Your task to perform on an android device: Look up the best selling books on Goodreads. Image 0: 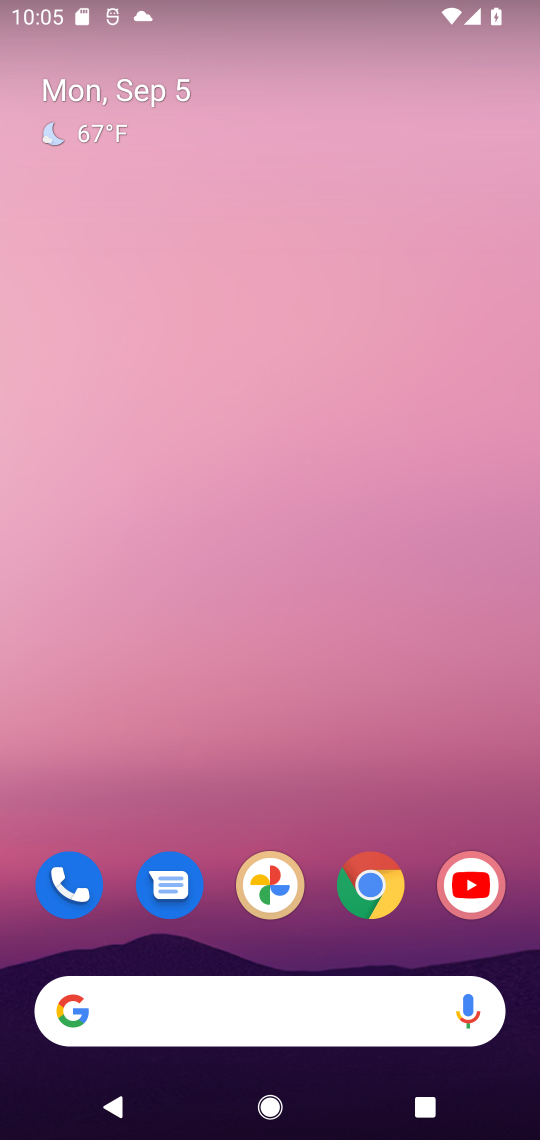
Step 0: drag from (315, 952) to (283, 41)
Your task to perform on an android device: Look up the best selling books on Goodreads. Image 1: 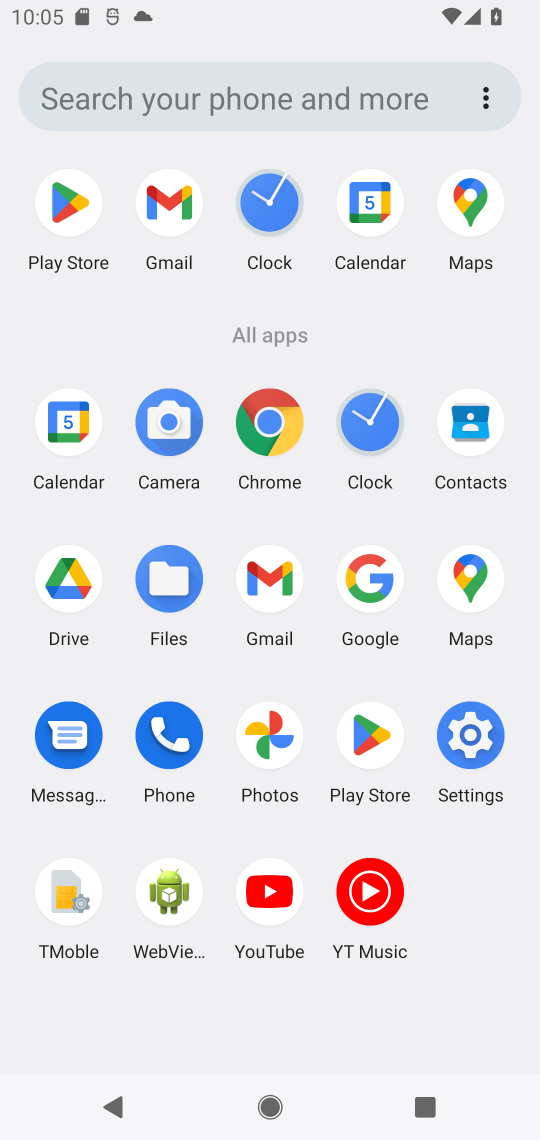
Step 1: click (370, 567)
Your task to perform on an android device: Look up the best selling books on Goodreads. Image 2: 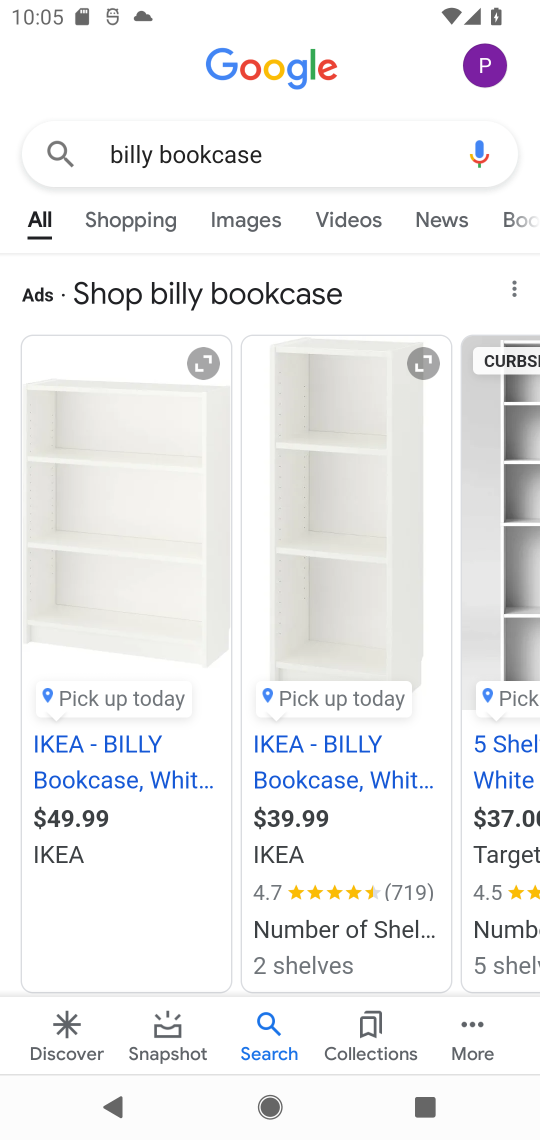
Step 2: click (319, 158)
Your task to perform on an android device: Look up the best selling books on Goodreads. Image 3: 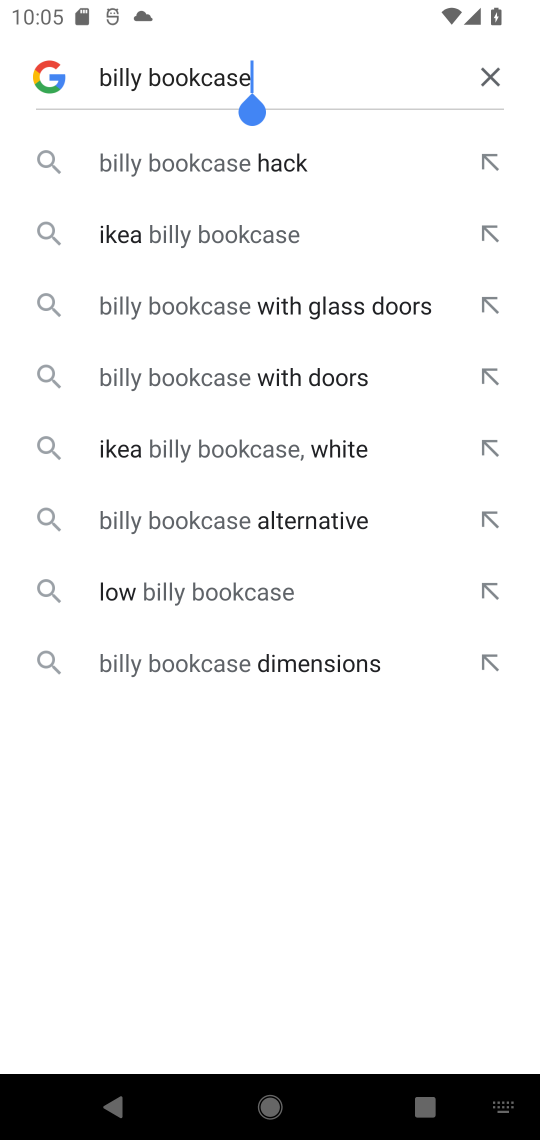
Step 3: click (491, 72)
Your task to perform on an android device: Look up the best selling books on Goodreads. Image 4: 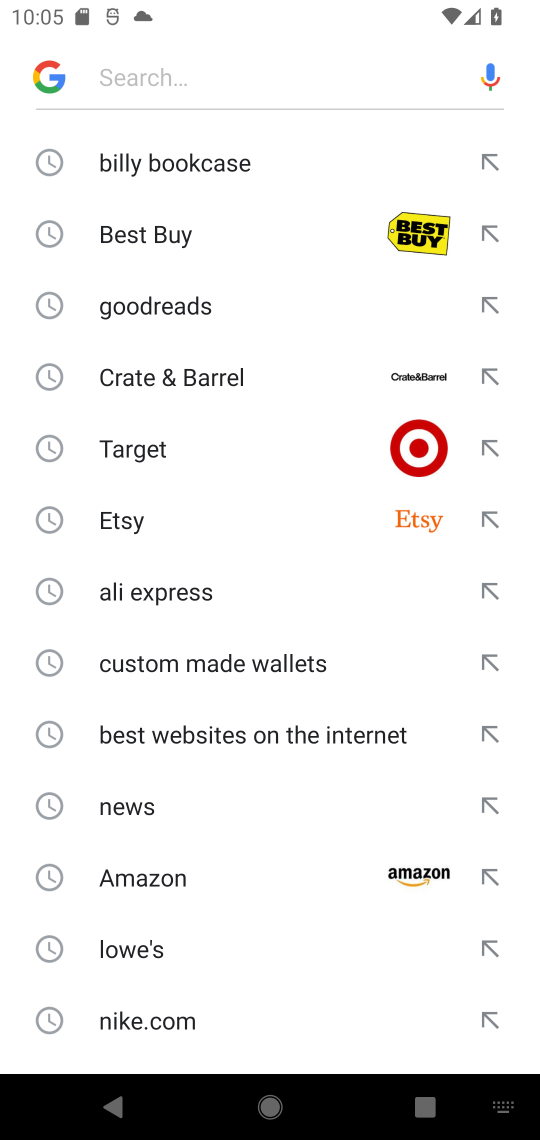
Step 4: type "Goodreads"
Your task to perform on an android device: Look up the best selling books on Goodreads. Image 5: 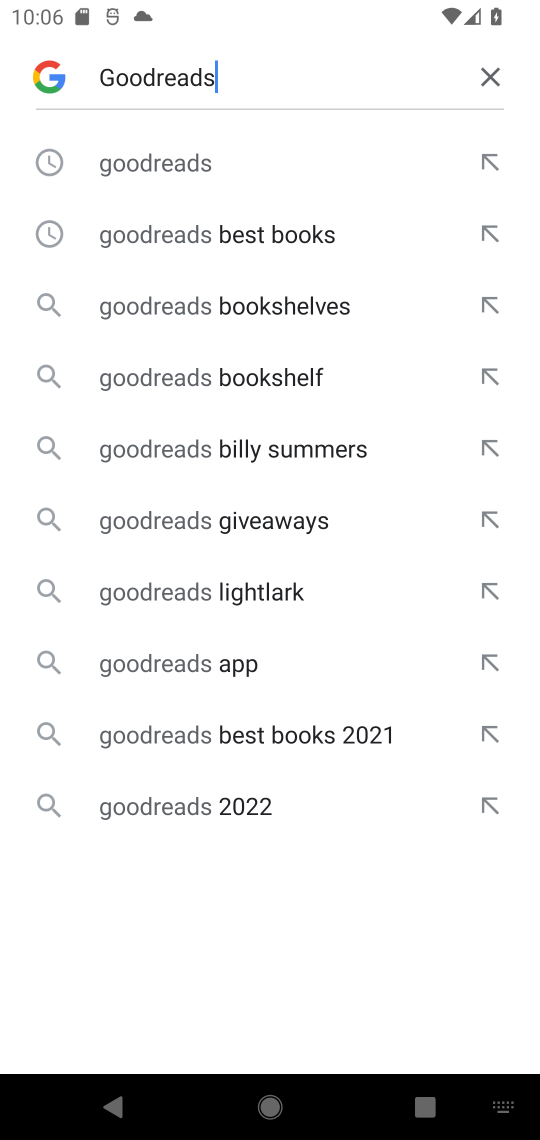
Step 5: click (158, 159)
Your task to perform on an android device: Look up the best selling books on Goodreads. Image 6: 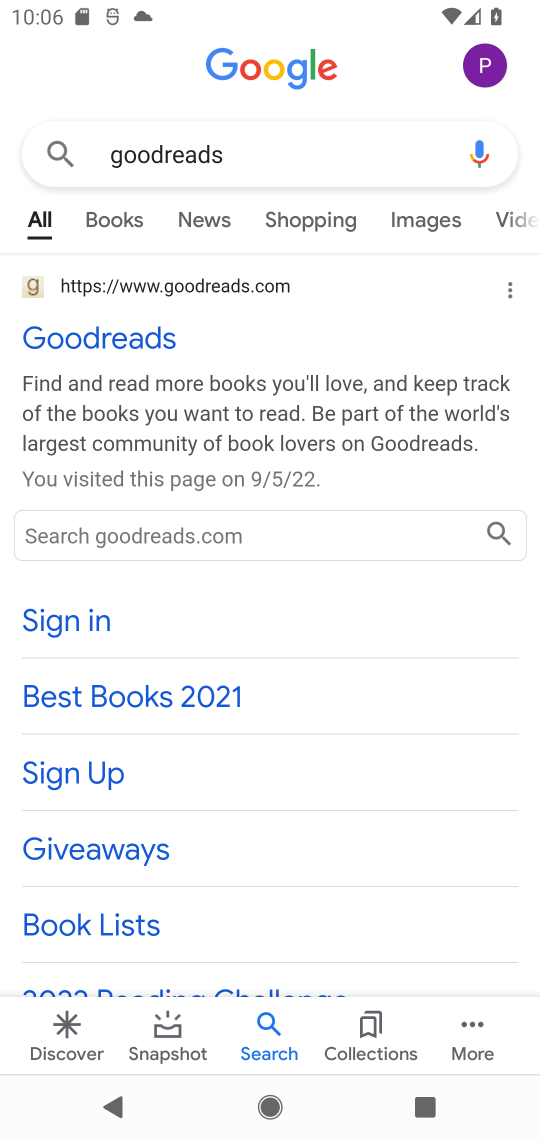
Step 6: click (122, 336)
Your task to perform on an android device: Look up the best selling books on Goodreads. Image 7: 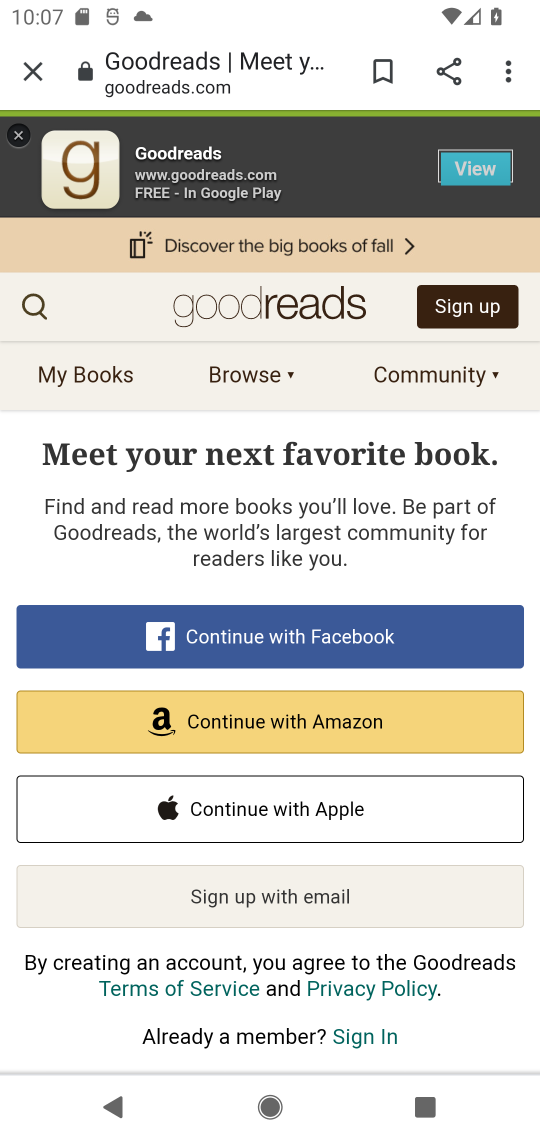
Step 7: click (32, 289)
Your task to perform on an android device: Look up the best selling books on Goodreads. Image 8: 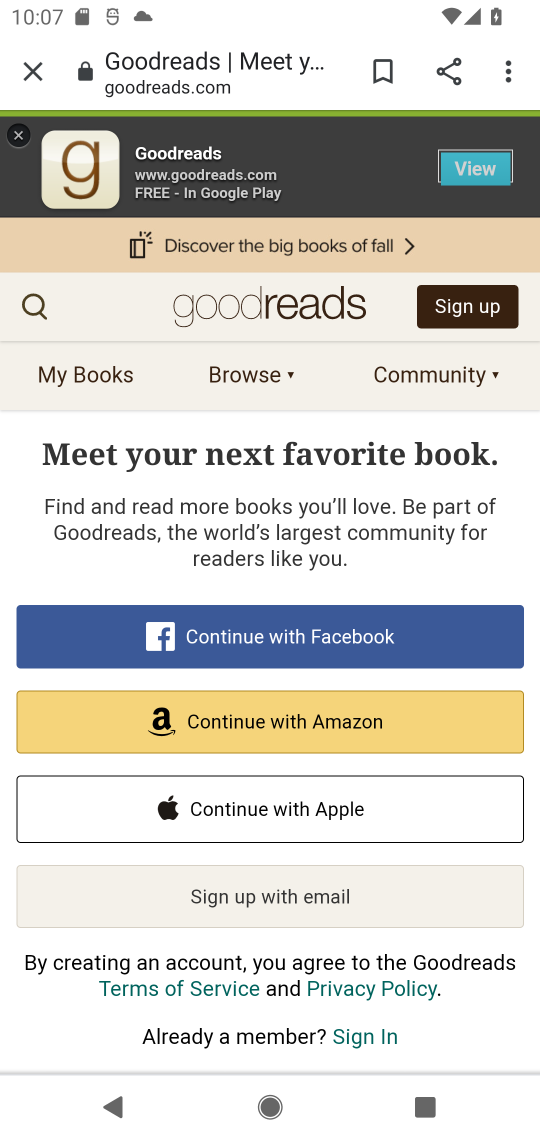
Step 8: click (26, 301)
Your task to perform on an android device: Look up the best selling books on Goodreads. Image 9: 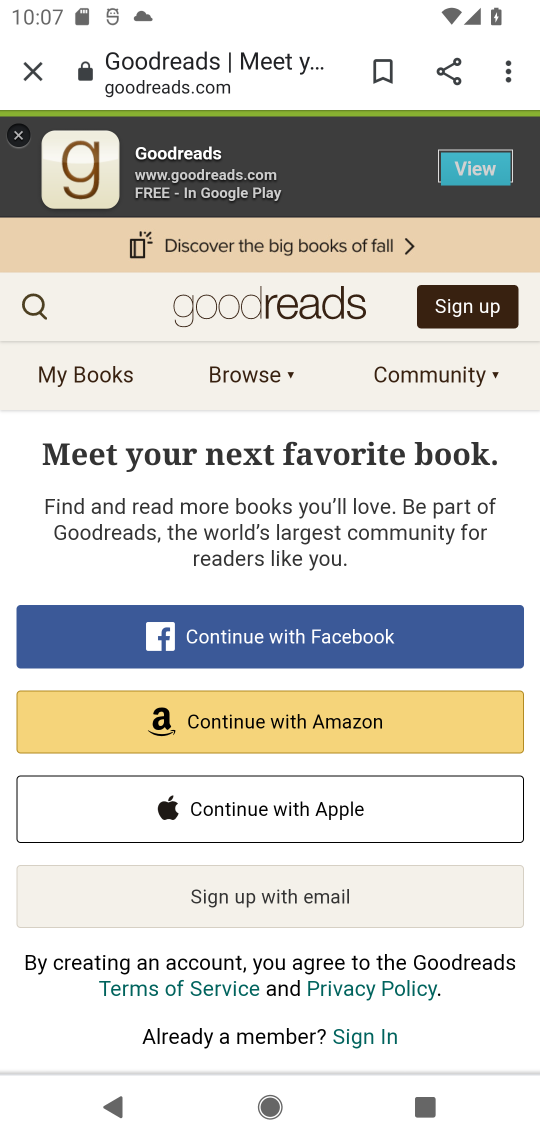
Step 9: click (36, 302)
Your task to perform on an android device: Look up the best selling books on Goodreads. Image 10: 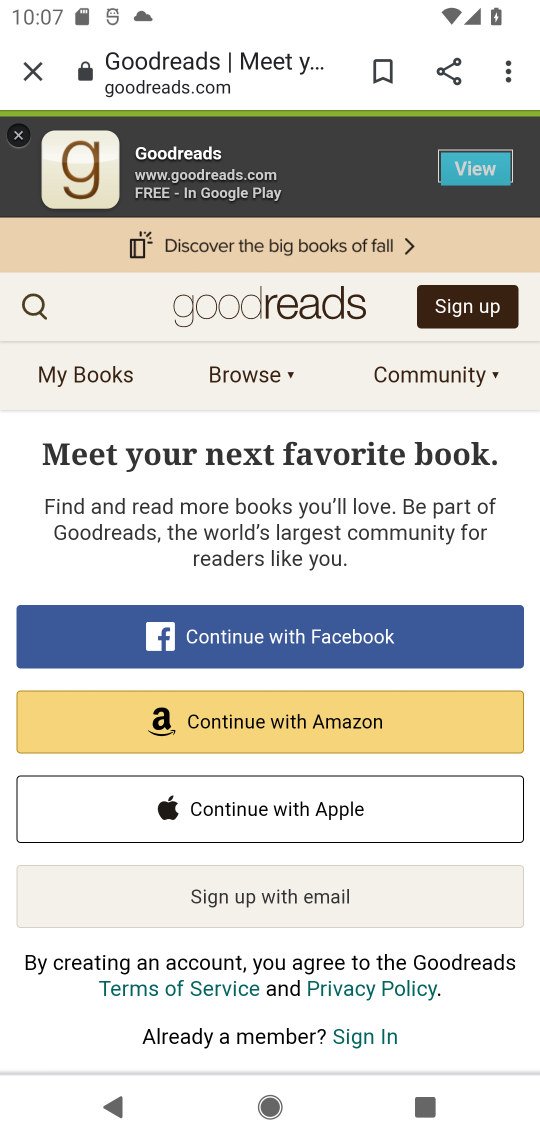
Step 10: click (37, 306)
Your task to perform on an android device: Look up the best selling books on Goodreads. Image 11: 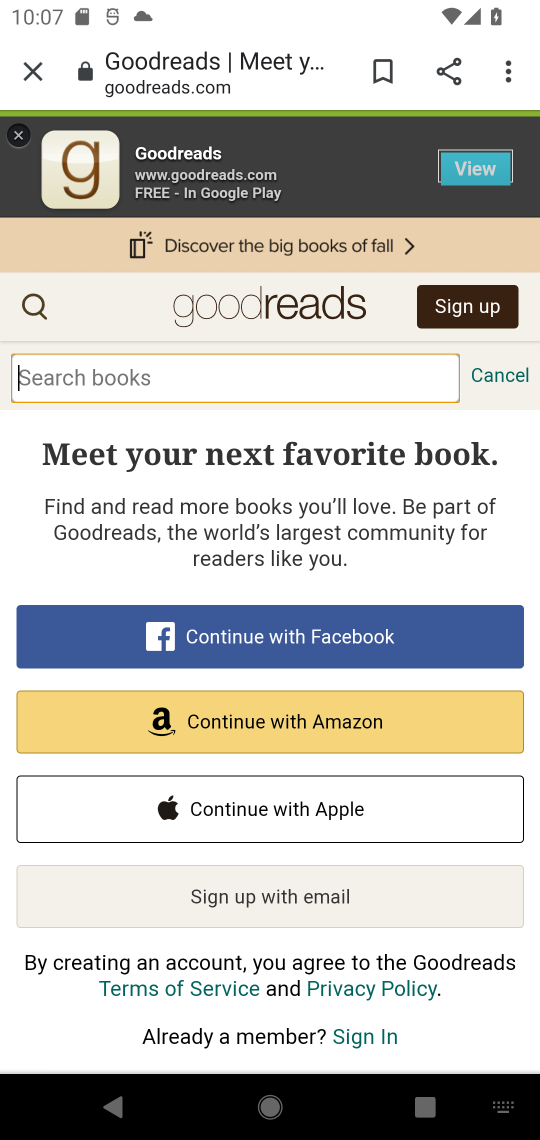
Step 11: type "books"
Your task to perform on an android device: Look up the best selling books on Goodreads. Image 12: 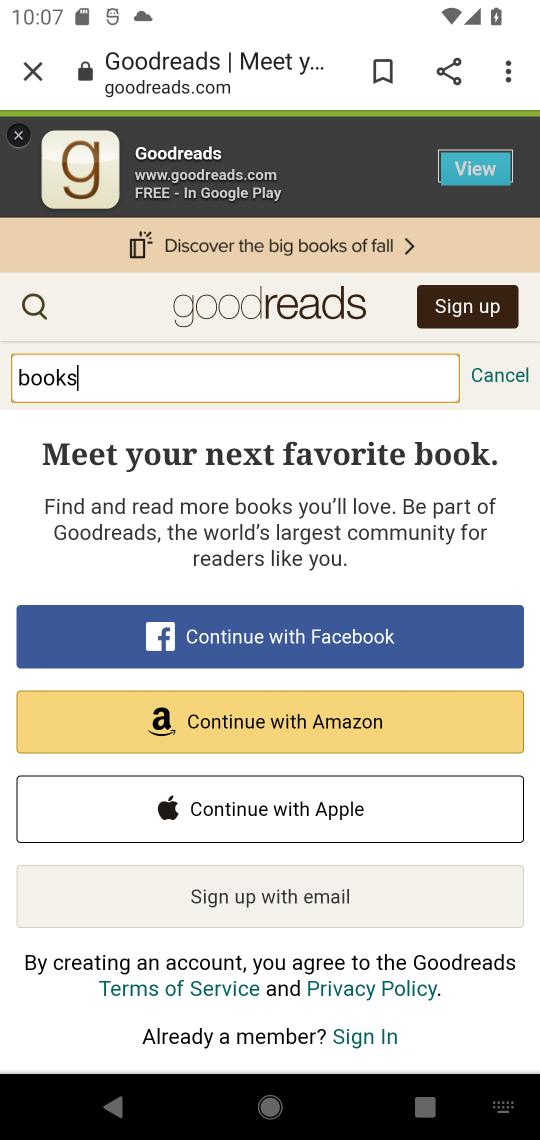
Step 12: type ""
Your task to perform on an android device: Look up the best selling books on Goodreads. Image 13: 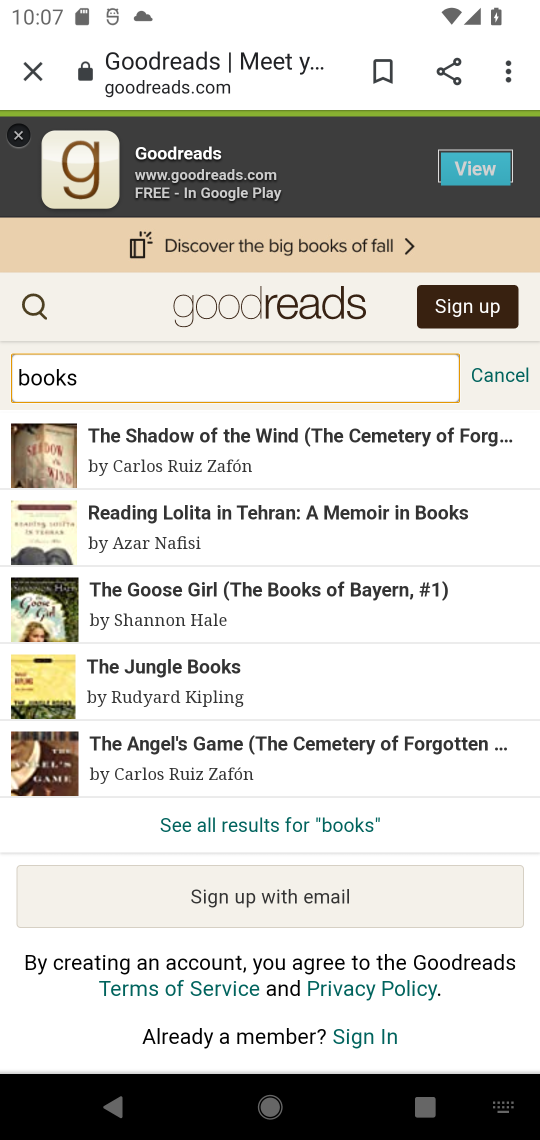
Step 13: task complete